Your task to perform on an android device: find snoozed emails in the gmail app Image 0: 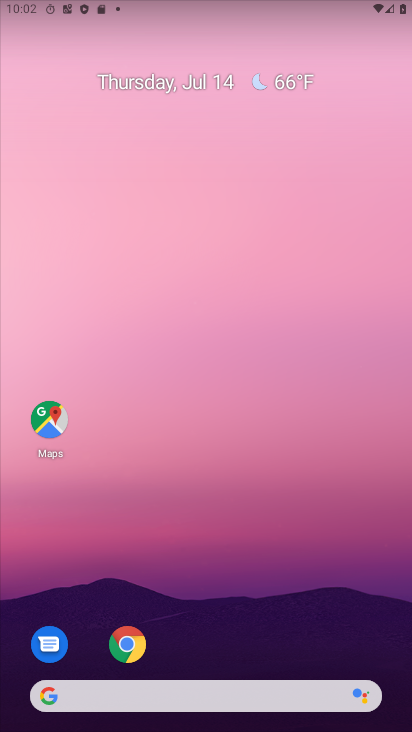
Step 0: drag from (257, 711) to (266, 292)
Your task to perform on an android device: find snoozed emails in the gmail app Image 1: 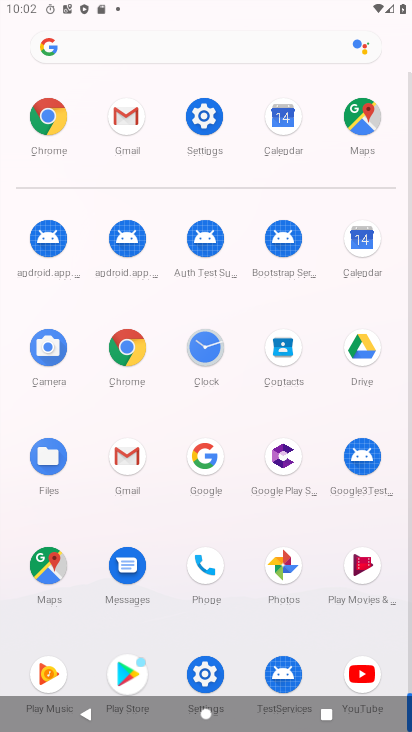
Step 1: click (121, 457)
Your task to perform on an android device: find snoozed emails in the gmail app Image 2: 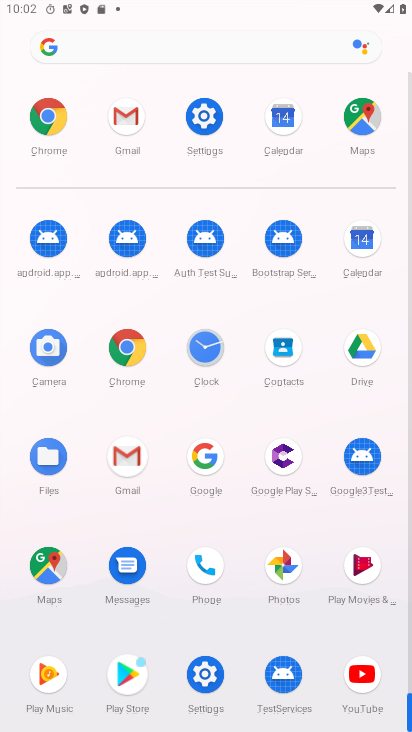
Step 2: click (120, 458)
Your task to perform on an android device: find snoozed emails in the gmail app Image 3: 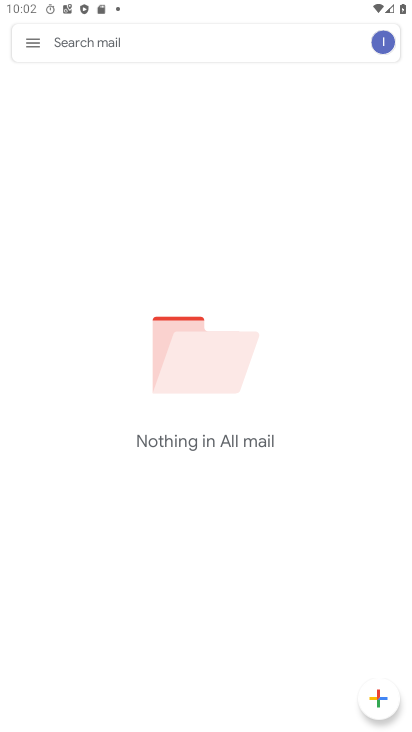
Step 3: drag from (26, 44) to (56, 520)
Your task to perform on an android device: find snoozed emails in the gmail app Image 4: 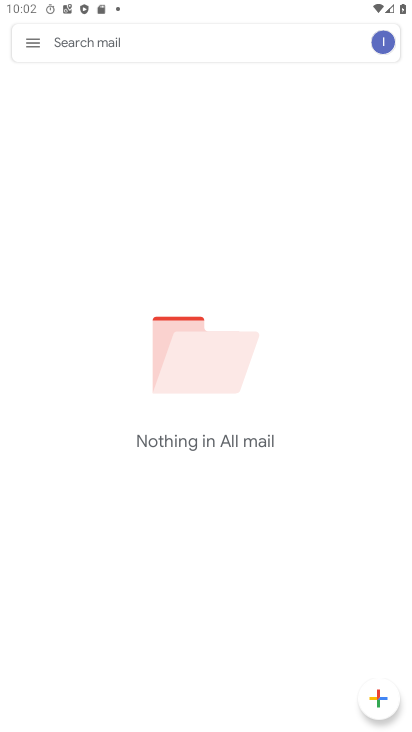
Step 4: drag from (34, 51) to (36, 101)
Your task to perform on an android device: find snoozed emails in the gmail app Image 5: 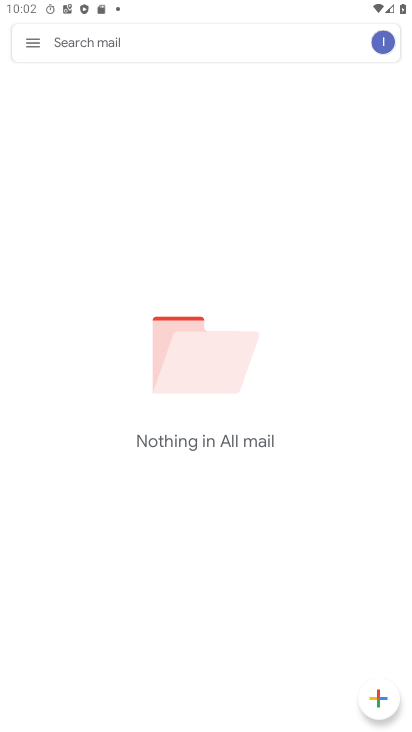
Step 5: drag from (34, 43) to (60, 210)
Your task to perform on an android device: find snoozed emails in the gmail app Image 6: 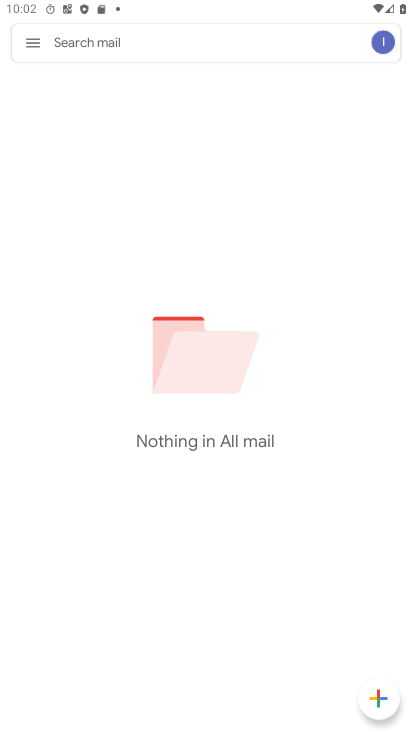
Step 6: click (32, 47)
Your task to perform on an android device: find snoozed emails in the gmail app Image 7: 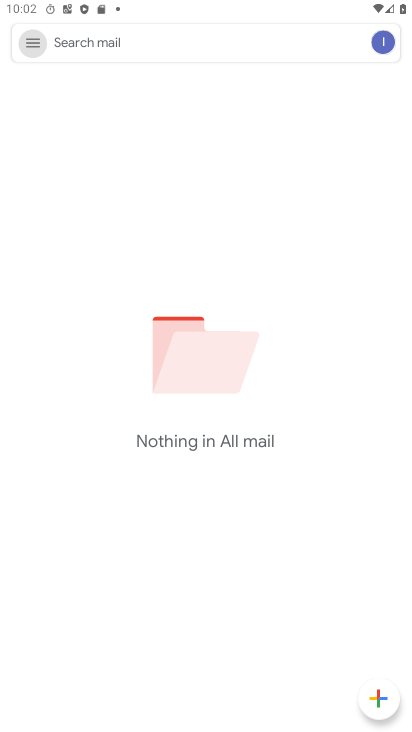
Step 7: click (32, 47)
Your task to perform on an android device: find snoozed emails in the gmail app Image 8: 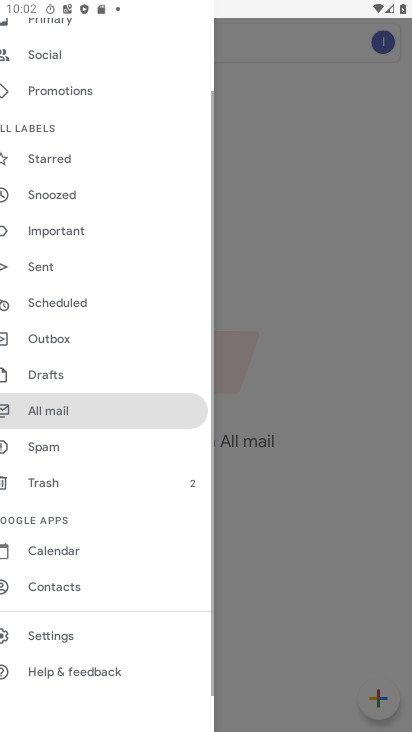
Step 8: drag from (32, 47) to (58, 175)
Your task to perform on an android device: find snoozed emails in the gmail app Image 9: 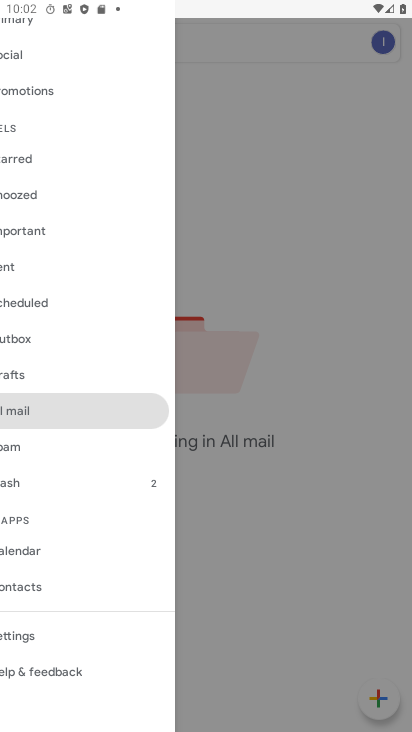
Step 9: click (50, 170)
Your task to perform on an android device: find snoozed emails in the gmail app Image 10: 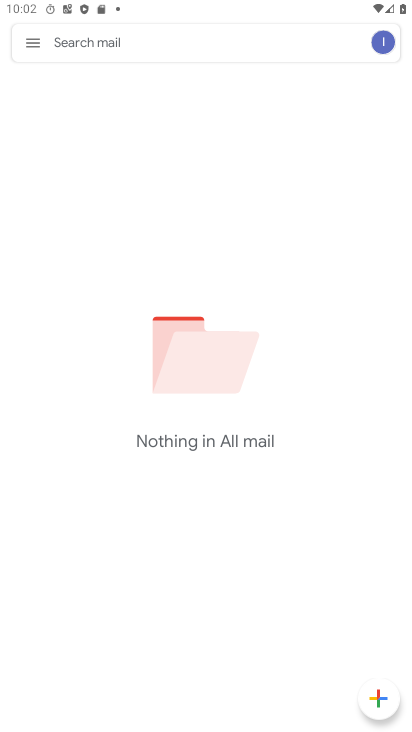
Step 10: click (69, 188)
Your task to perform on an android device: find snoozed emails in the gmail app Image 11: 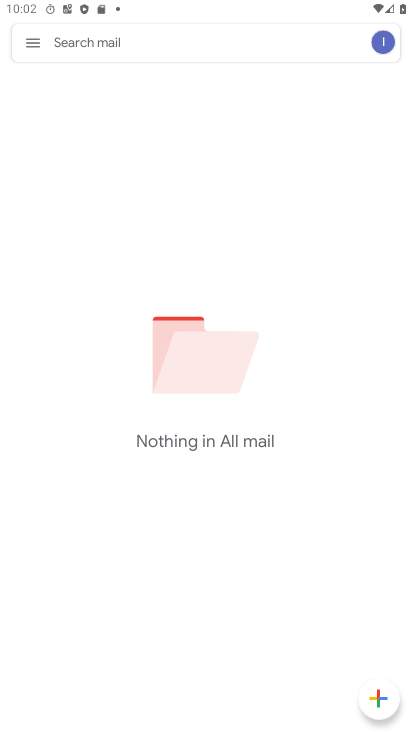
Step 11: click (21, 42)
Your task to perform on an android device: find snoozed emails in the gmail app Image 12: 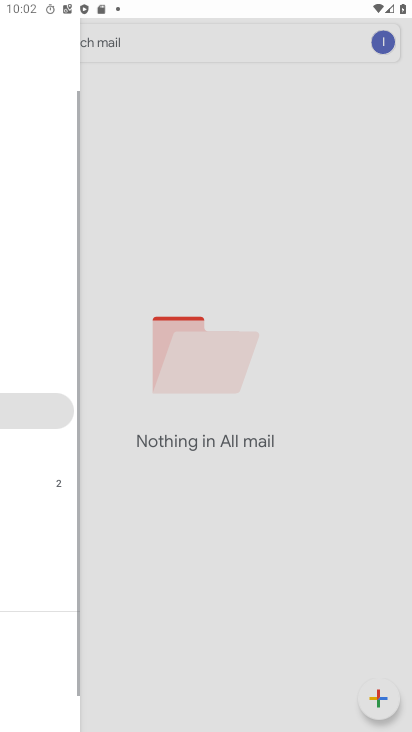
Step 12: click (25, 39)
Your task to perform on an android device: find snoozed emails in the gmail app Image 13: 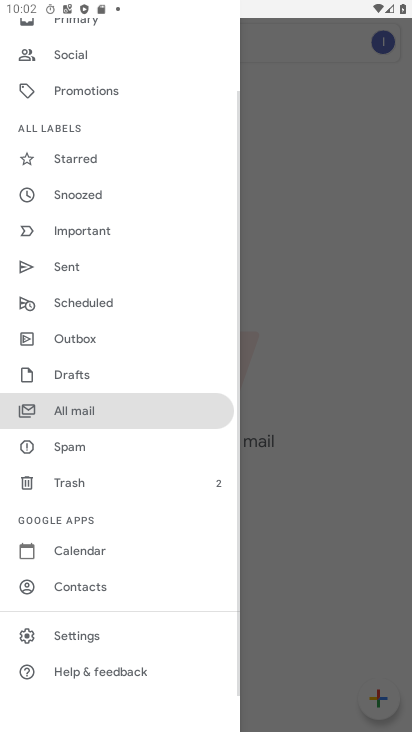
Step 13: click (89, 199)
Your task to perform on an android device: find snoozed emails in the gmail app Image 14: 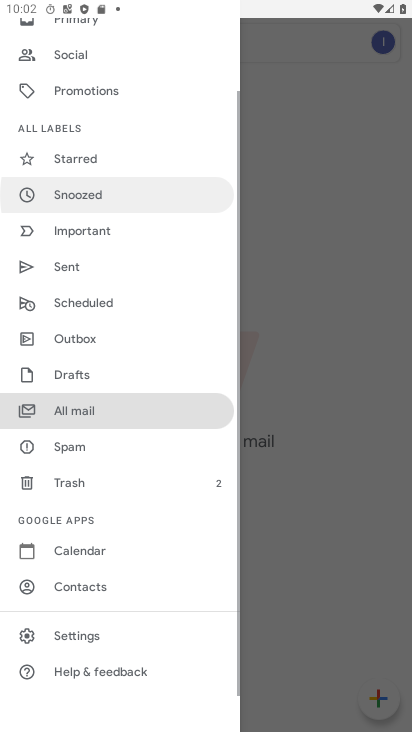
Step 14: click (89, 198)
Your task to perform on an android device: find snoozed emails in the gmail app Image 15: 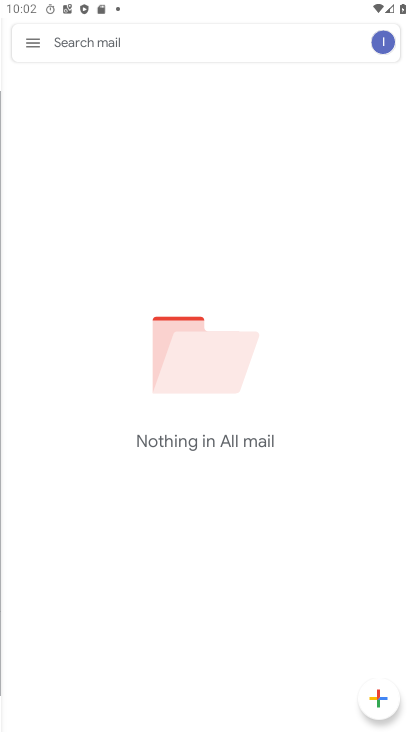
Step 15: click (89, 198)
Your task to perform on an android device: find snoozed emails in the gmail app Image 16: 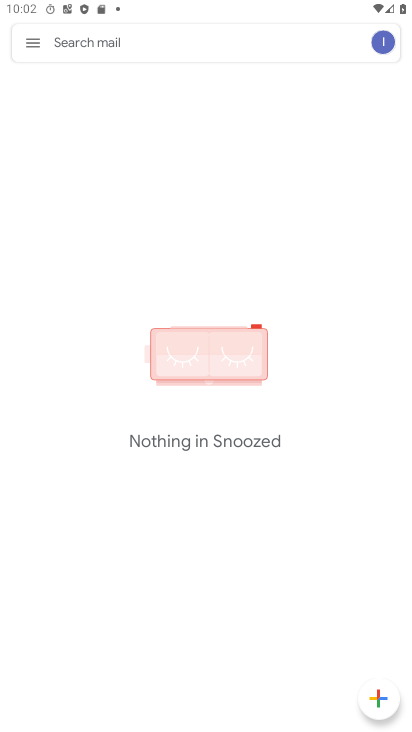
Step 16: task complete